Your task to perform on an android device: Open the web browser Image 0: 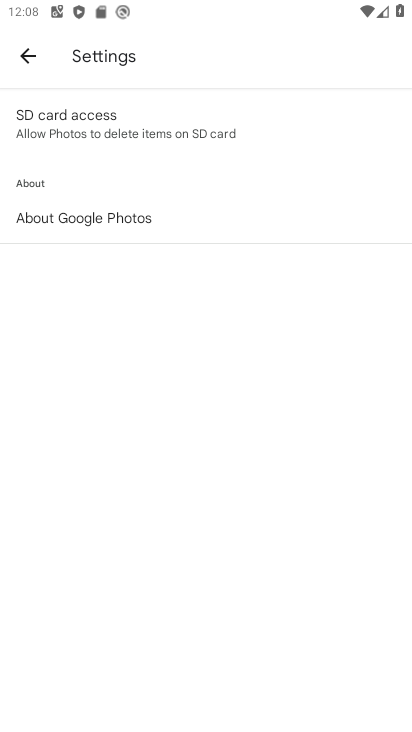
Step 0: press home button
Your task to perform on an android device: Open the web browser Image 1: 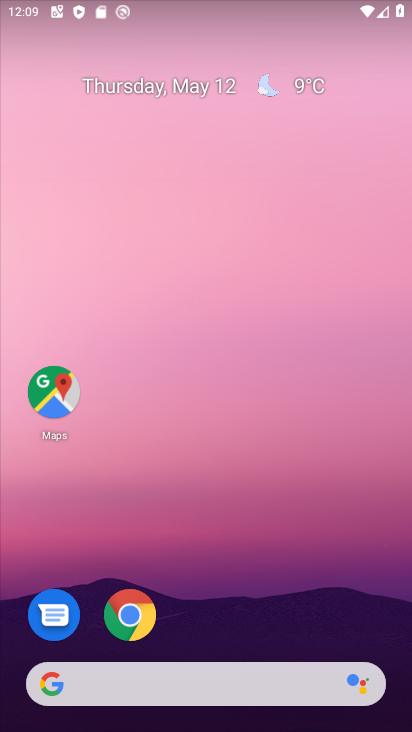
Step 1: click (125, 606)
Your task to perform on an android device: Open the web browser Image 2: 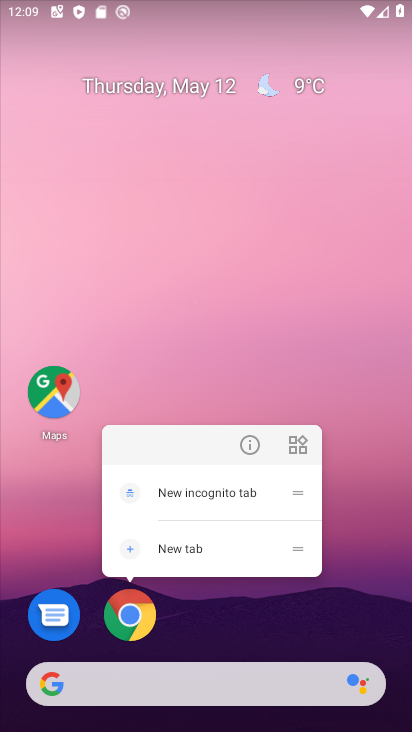
Step 2: click (126, 608)
Your task to perform on an android device: Open the web browser Image 3: 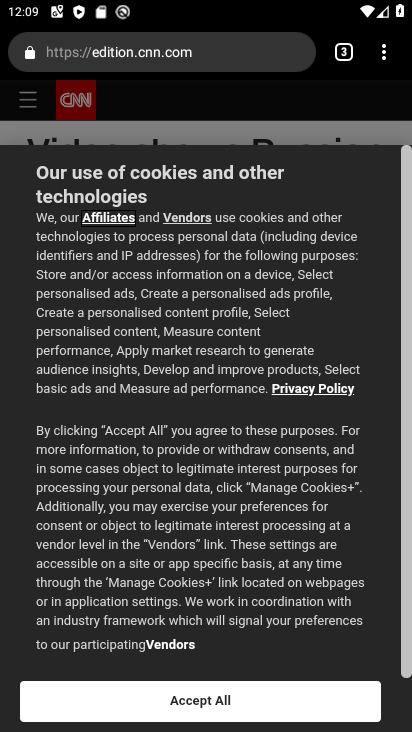
Step 3: task complete